Your task to perform on an android device: Open Android settings Image 0: 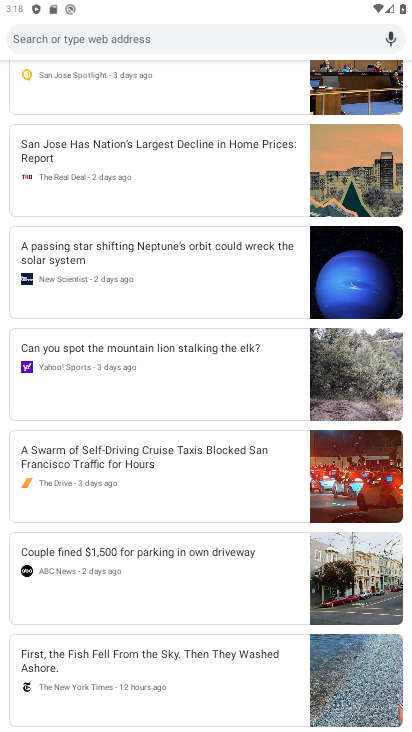
Step 0: press back button
Your task to perform on an android device: Open Android settings Image 1: 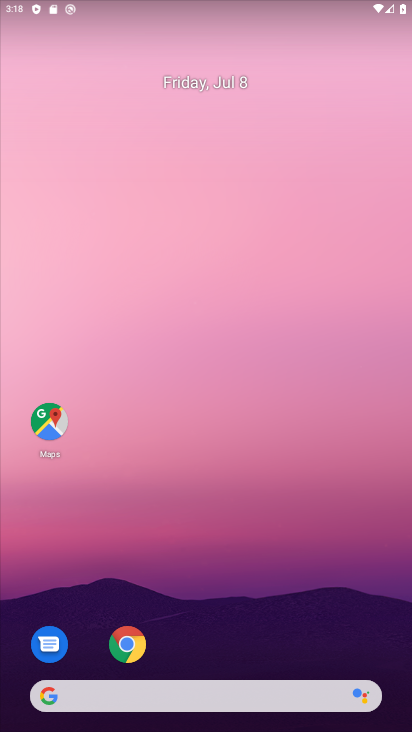
Step 1: drag from (282, 696) to (102, 199)
Your task to perform on an android device: Open Android settings Image 2: 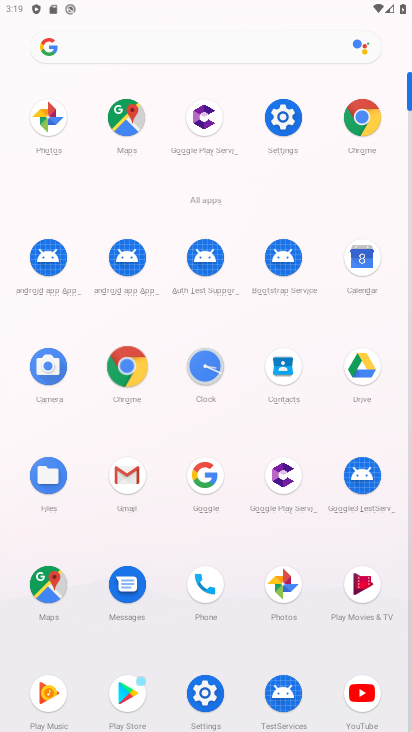
Step 2: click (208, 692)
Your task to perform on an android device: Open Android settings Image 3: 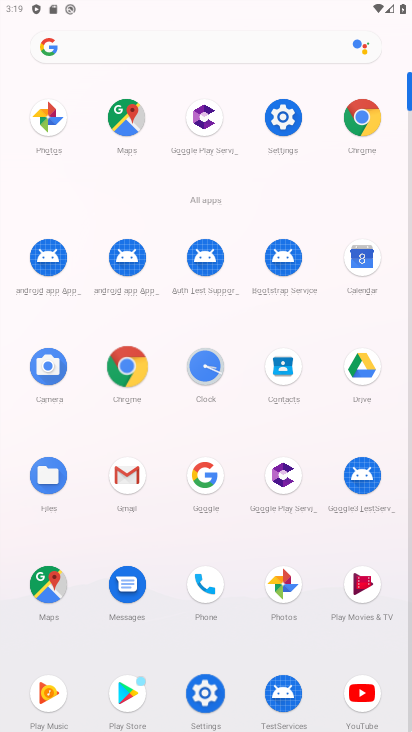
Step 3: click (197, 688)
Your task to perform on an android device: Open Android settings Image 4: 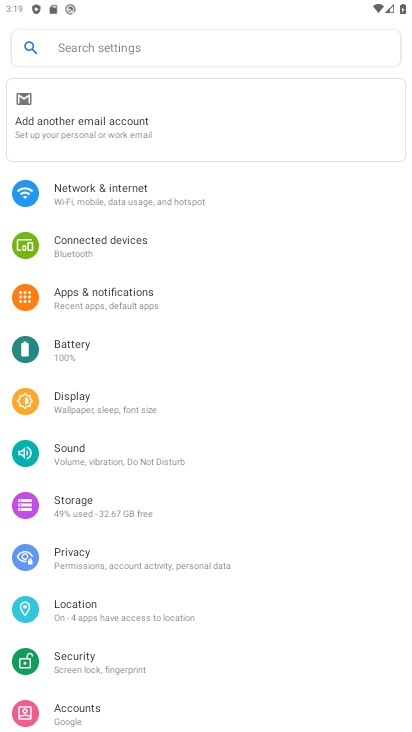
Step 4: drag from (156, 622) to (153, 93)
Your task to perform on an android device: Open Android settings Image 5: 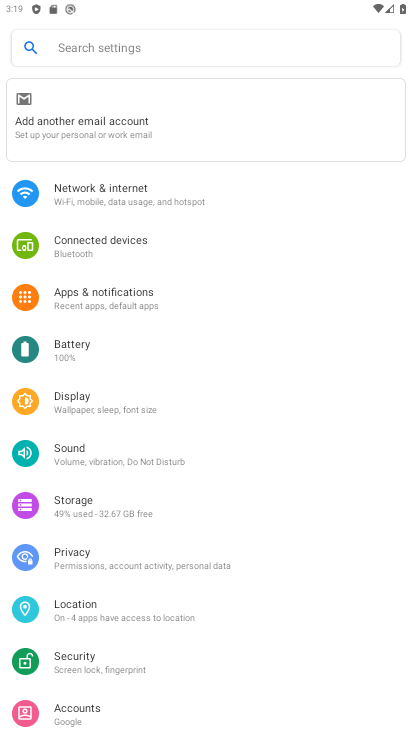
Step 5: click (112, 242)
Your task to perform on an android device: Open Android settings Image 6: 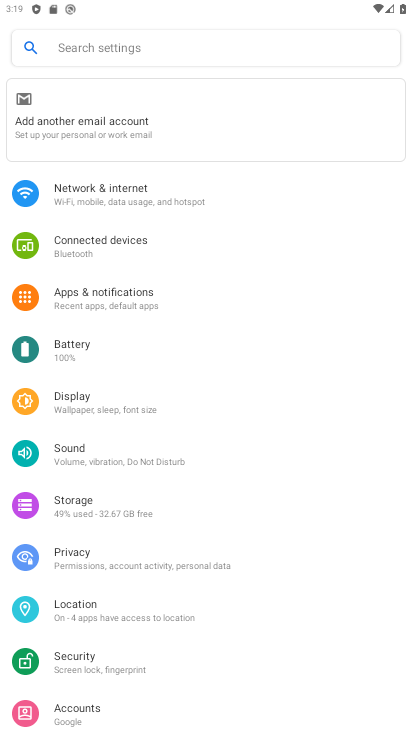
Step 6: drag from (177, 589) to (158, 247)
Your task to perform on an android device: Open Android settings Image 7: 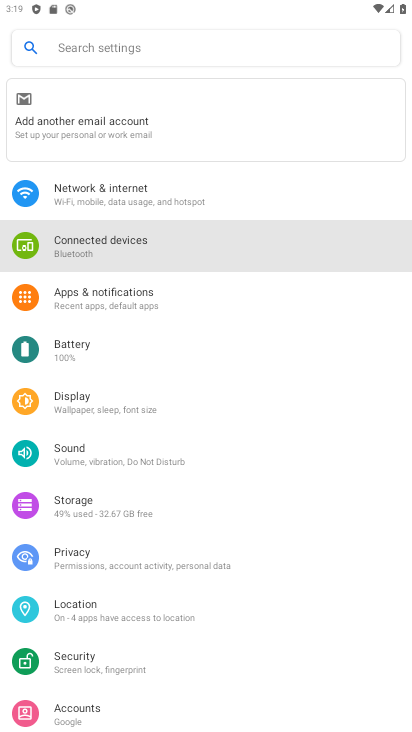
Step 7: drag from (161, 678) to (116, 342)
Your task to perform on an android device: Open Android settings Image 8: 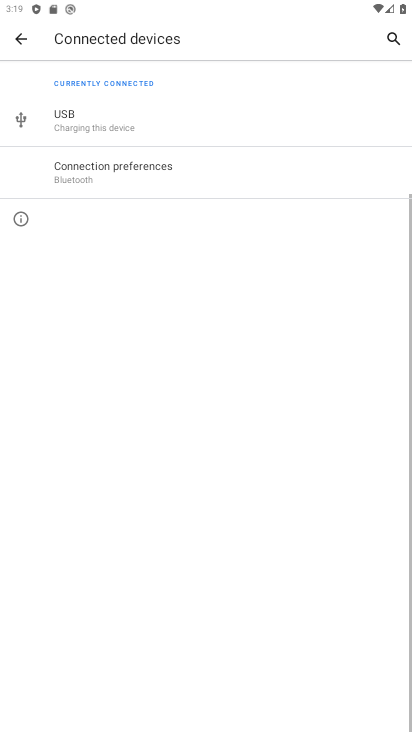
Step 8: drag from (148, 592) to (120, 244)
Your task to perform on an android device: Open Android settings Image 9: 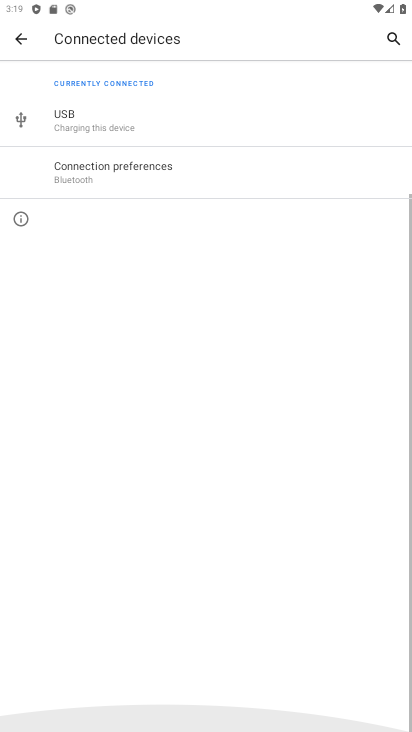
Step 9: drag from (165, 510) to (113, 144)
Your task to perform on an android device: Open Android settings Image 10: 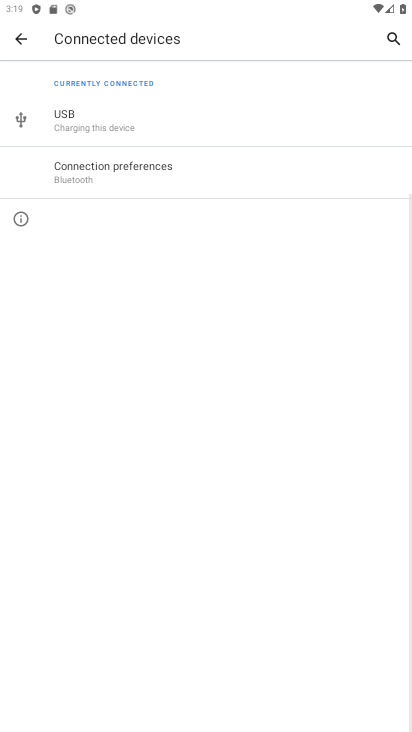
Step 10: click (23, 41)
Your task to perform on an android device: Open Android settings Image 11: 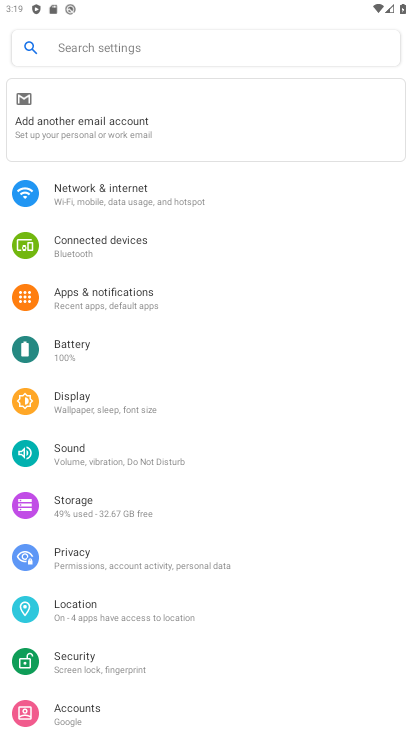
Step 11: drag from (134, 637) to (93, 300)
Your task to perform on an android device: Open Android settings Image 12: 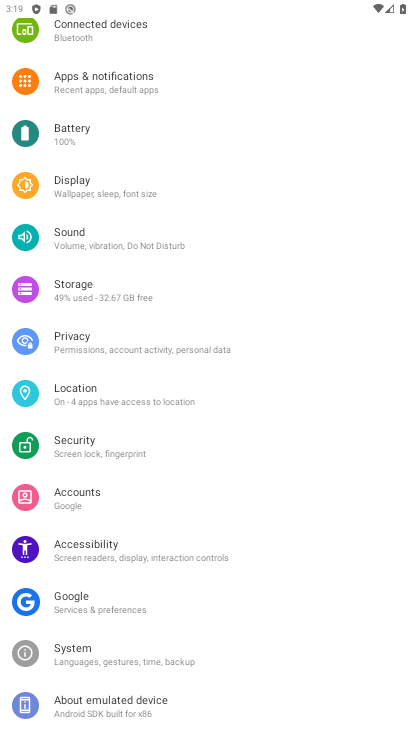
Step 12: click (101, 699)
Your task to perform on an android device: Open Android settings Image 13: 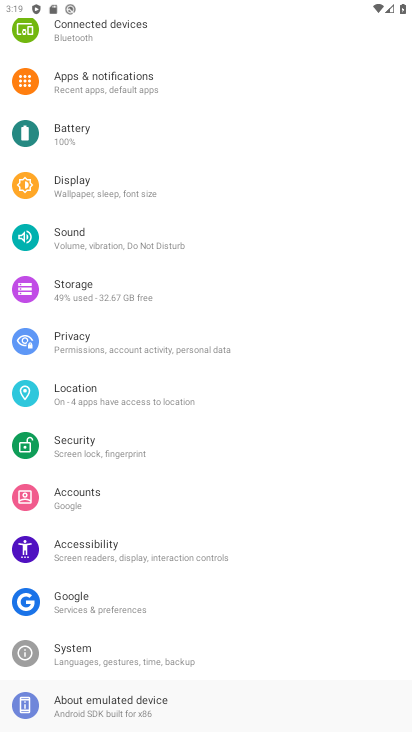
Step 13: click (95, 702)
Your task to perform on an android device: Open Android settings Image 14: 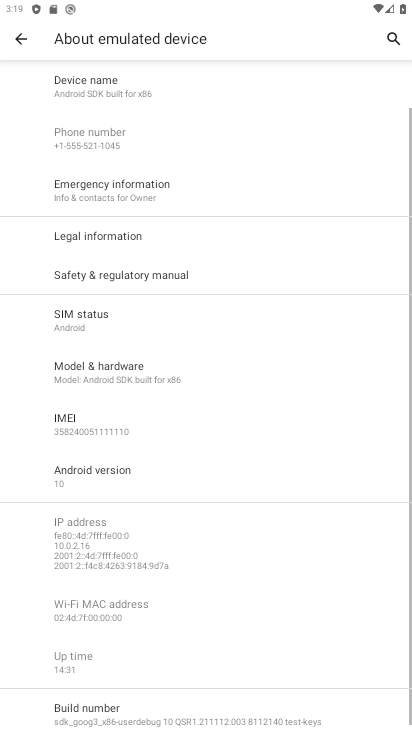
Step 14: click (96, 716)
Your task to perform on an android device: Open Android settings Image 15: 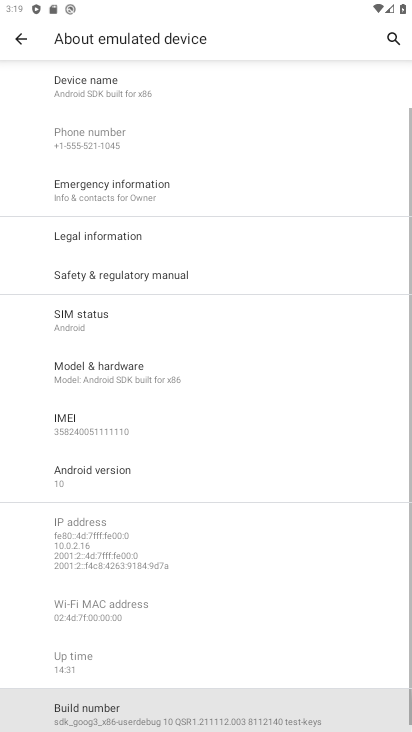
Step 15: click (96, 721)
Your task to perform on an android device: Open Android settings Image 16: 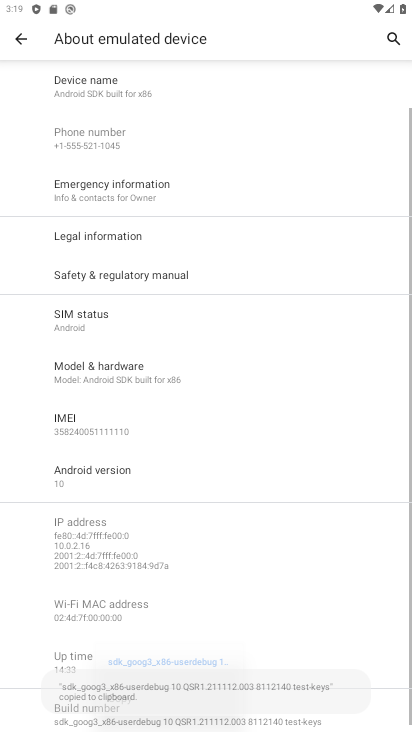
Step 16: click (267, 507)
Your task to perform on an android device: Open Android settings Image 17: 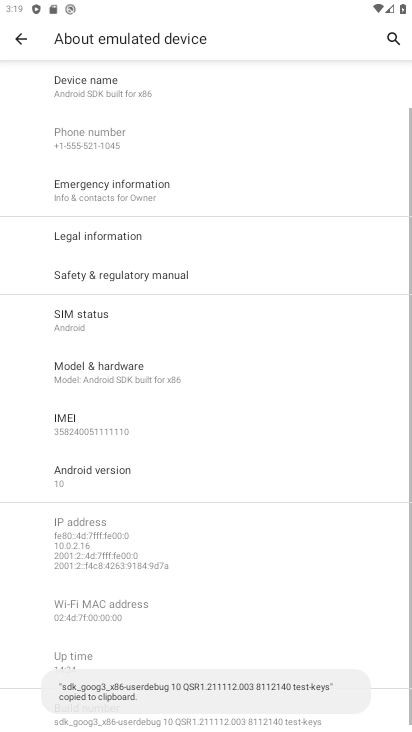
Step 17: task complete